Your task to perform on an android device: read, delete, or share a saved page in the chrome app Image 0: 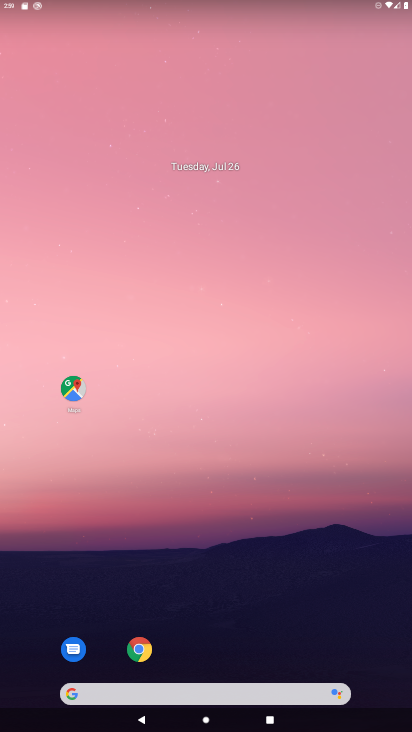
Step 0: click (144, 657)
Your task to perform on an android device: read, delete, or share a saved page in the chrome app Image 1: 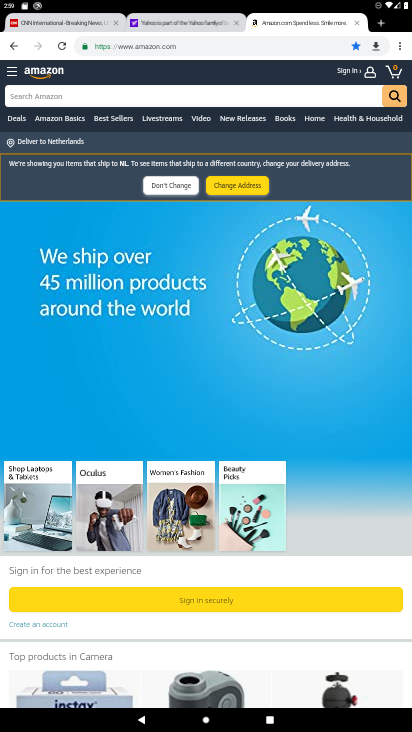
Step 1: click (405, 45)
Your task to perform on an android device: read, delete, or share a saved page in the chrome app Image 2: 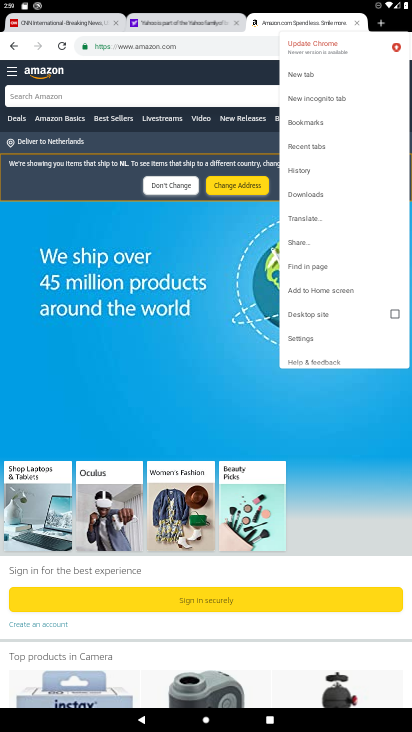
Step 2: click (325, 192)
Your task to perform on an android device: read, delete, or share a saved page in the chrome app Image 3: 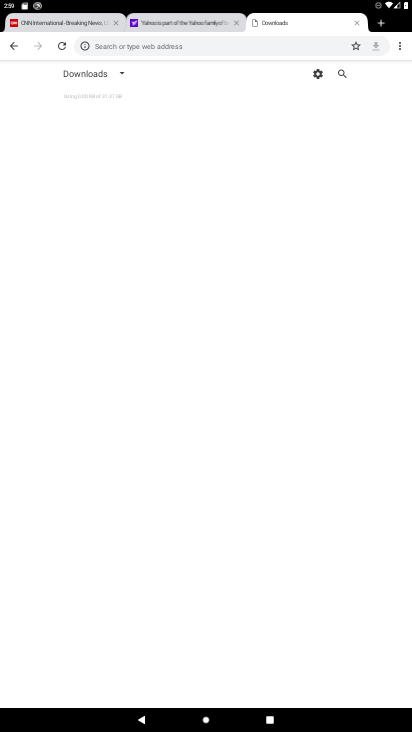
Step 3: task complete